Your task to perform on an android device: View the shopping cart on newegg.com. Search for "apple airpods" on newegg.com, select the first entry, add it to the cart, then select checkout. Image 0: 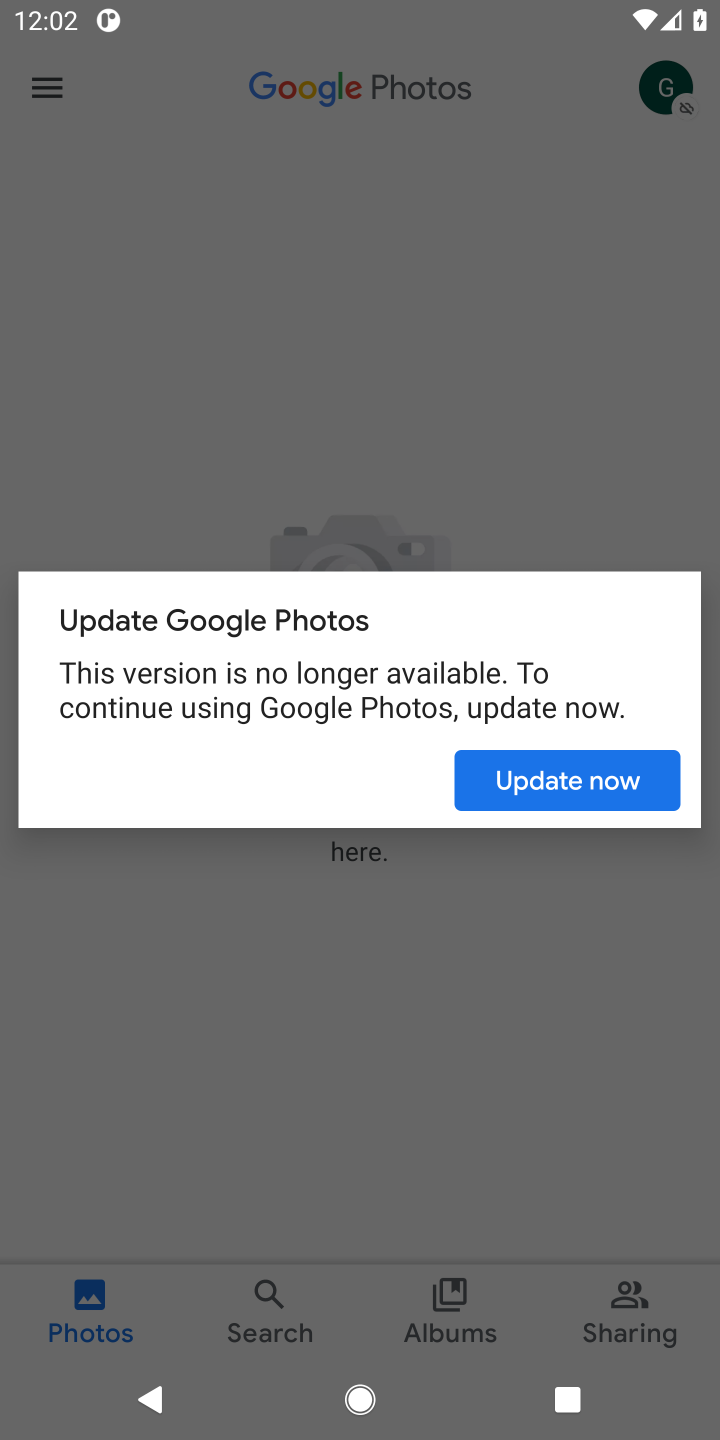
Step 0: press home button
Your task to perform on an android device: View the shopping cart on newegg.com. Search for "apple airpods" on newegg.com, select the first entry, add it to the cart, then select checkout. Image 1: 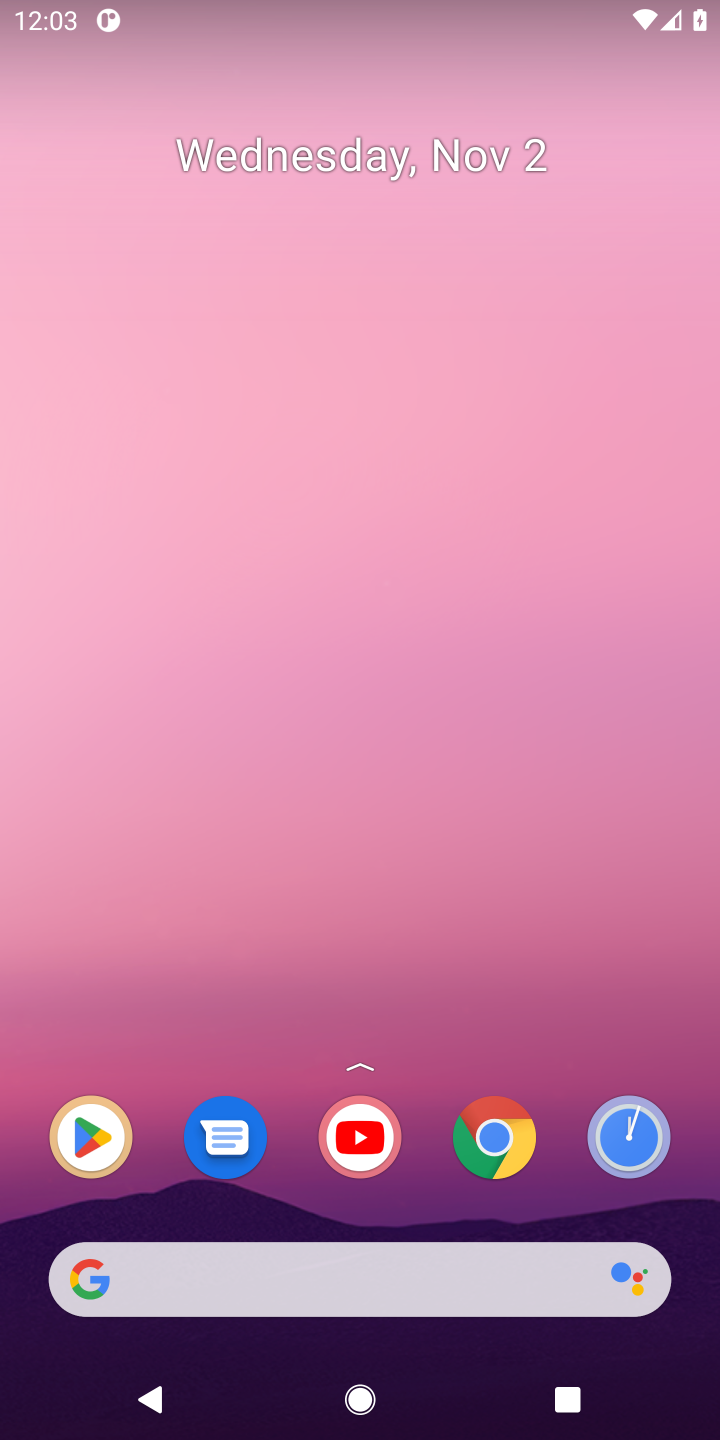
Step 1: click (457, 1283)
Your task to perform on an android device: View the shopping cart on newegg.com. Search for "apple airpods" on newegg.com, select the first entry, add it to the cart, then select checkout. Image 2: 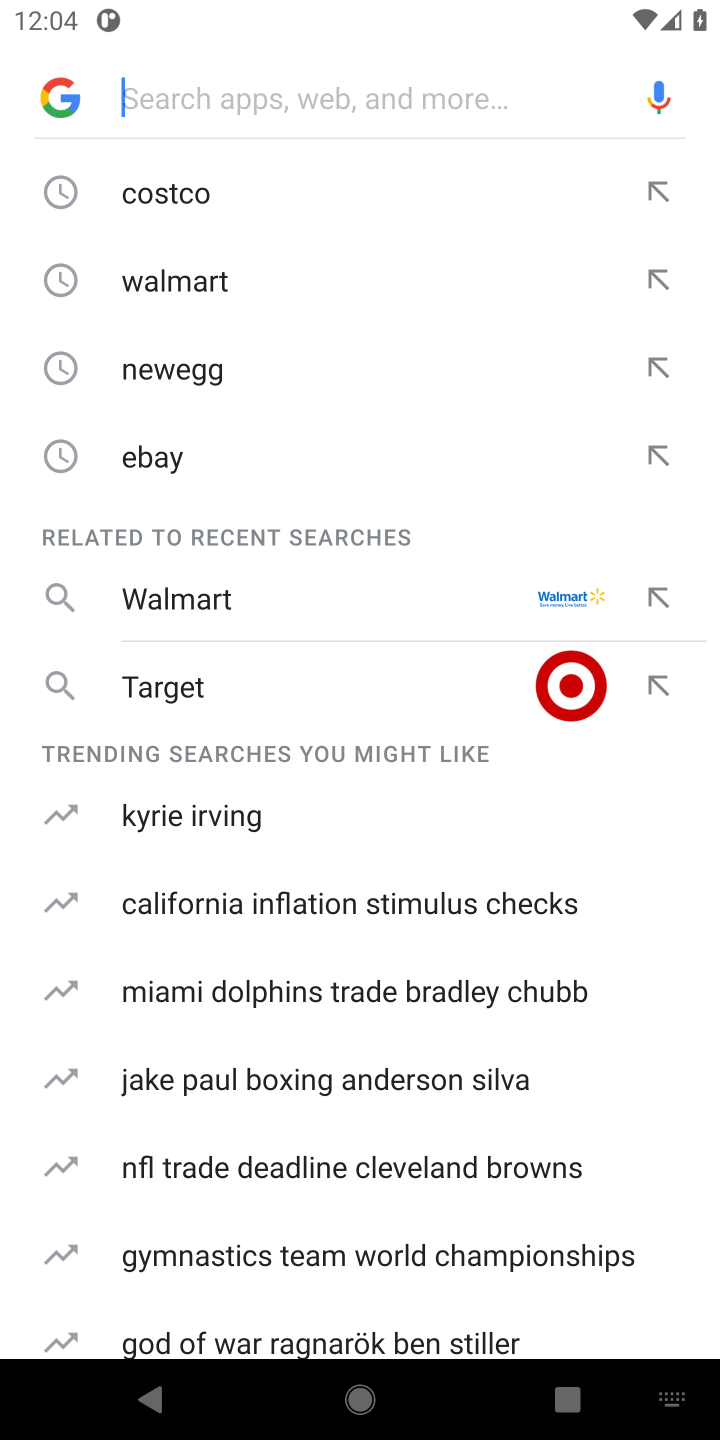
Step 2: task complete